Your task to perform on an android device: turn on notifications settings in the gmail app Image 0: 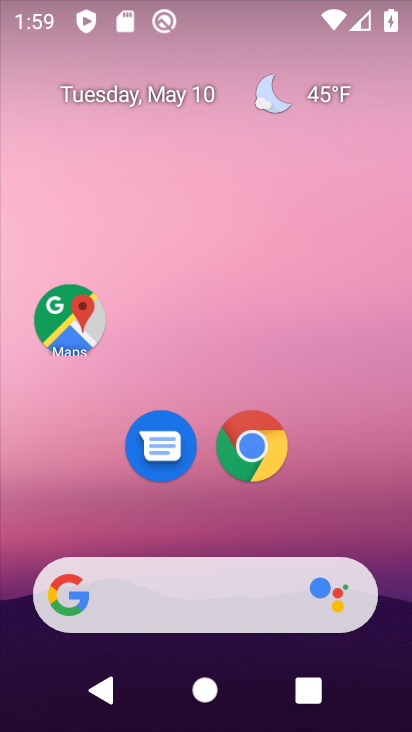
Step 0: drag from (220, 533) to (184, 113)
Your task to perform on an android device: turn on notifications settings in the gmail app Image 1: 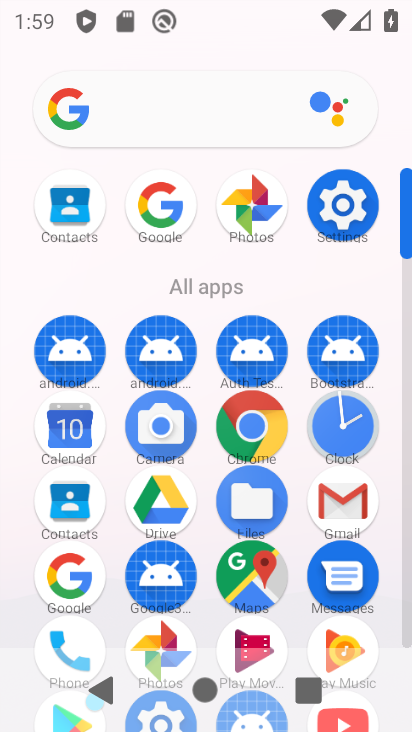
Step 1: click (347, 502)
Your task to perform on an android device: turn on notifications settings in the gmail app Image 2: 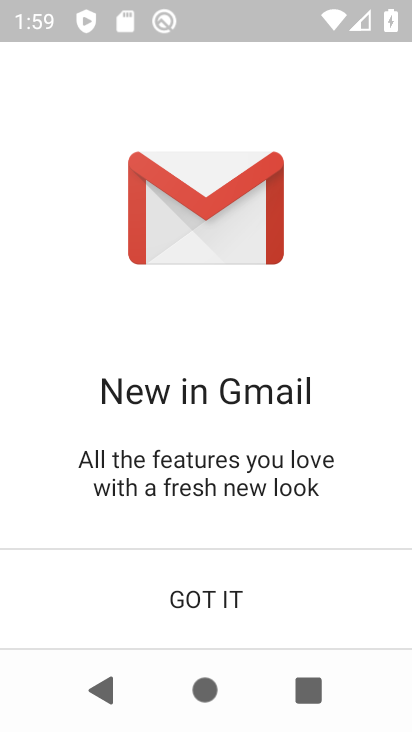
Step 2: click (208, 600)
Your task to perform on an android device: turn on notifications settings in the gmail app Image 3: 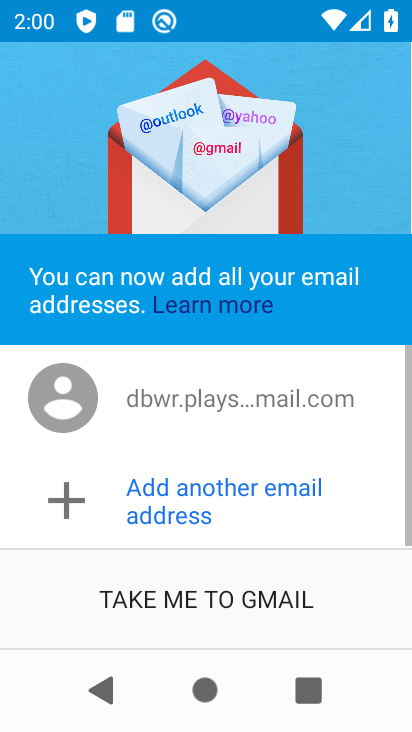
Step 3: click (213, 592)
Your task to perform on an android device: turn on notifications settings in the gmail app Image 4: 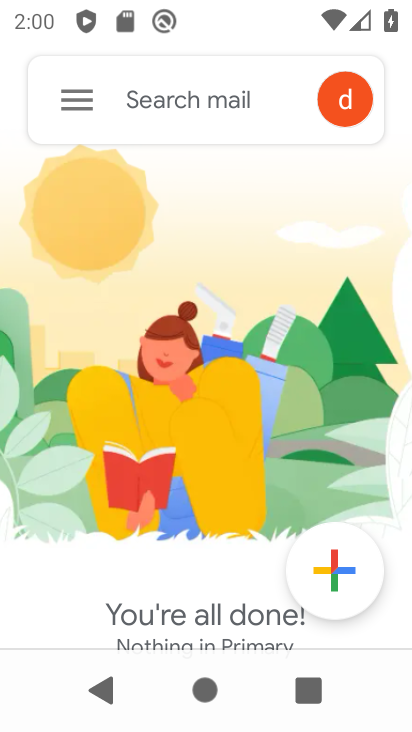
Step 4: click (74, 100)
Your task to perform on an android device: turn on notifications settings in the gmail app Image 5: 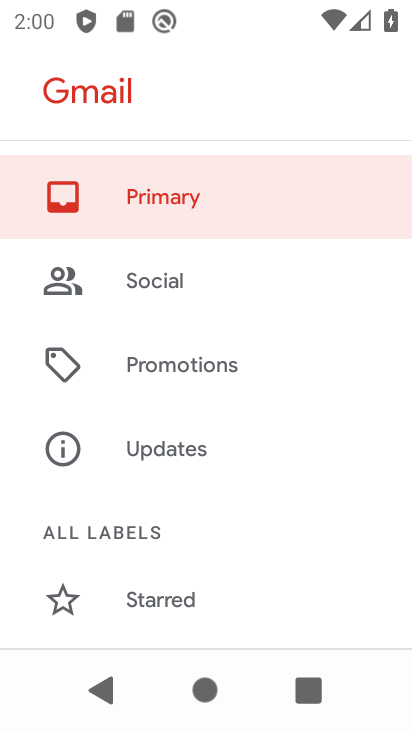
Step 5: drag from (218, 568) to (239, 1)
Your task to perform on an android device: turn on notifications settings in the gmail app Image 6: 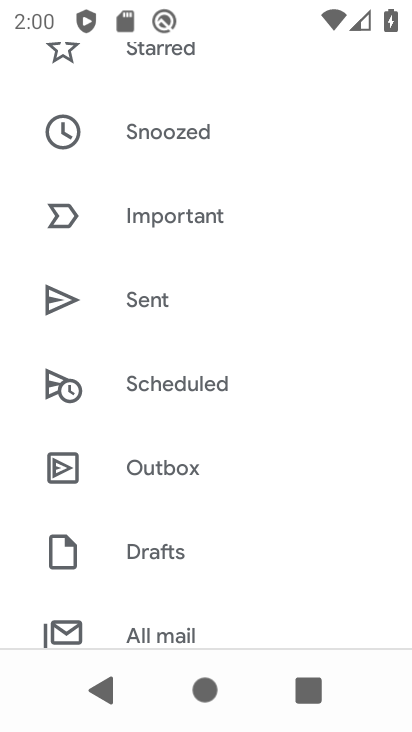
Step 6: drag from (185, 585) to (158, 72)
Your task to perform on an android device: turn on notifications settings in the gmail app Image 7: 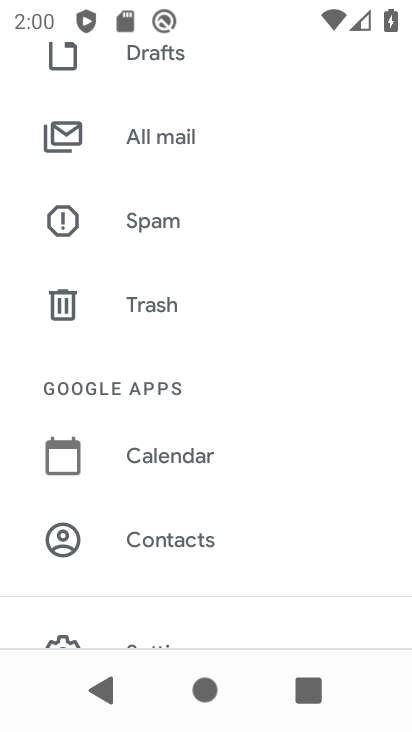
Step 7: drag from (158, 545) to (171, 150)
Your task to perform on an android device: turn on notifications settings in the gmail app Image 8: 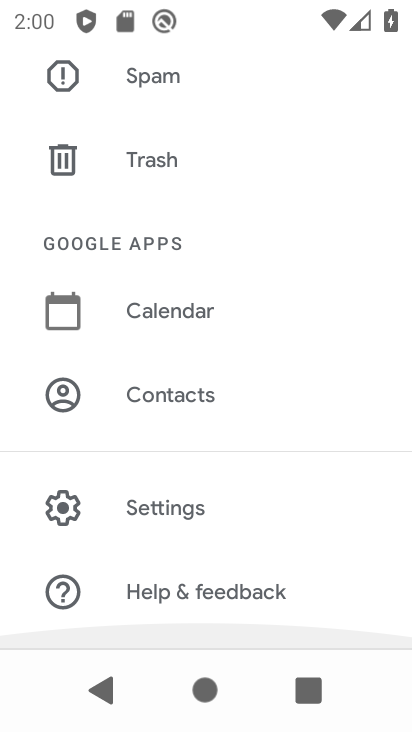
Step 8: click (120, 514)
Your task to perform on an android device: turn on notifications settings in the gmail app Image 9: 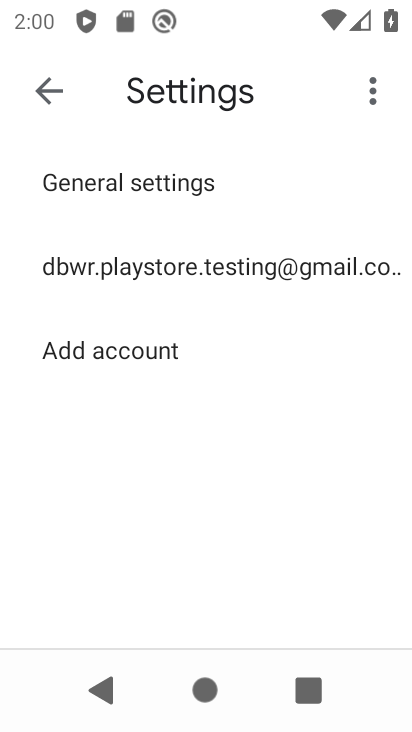
Step 9: click (137, 274)
Your task to perform on an android device: turn on notifications settings in the gmail app Image 10: 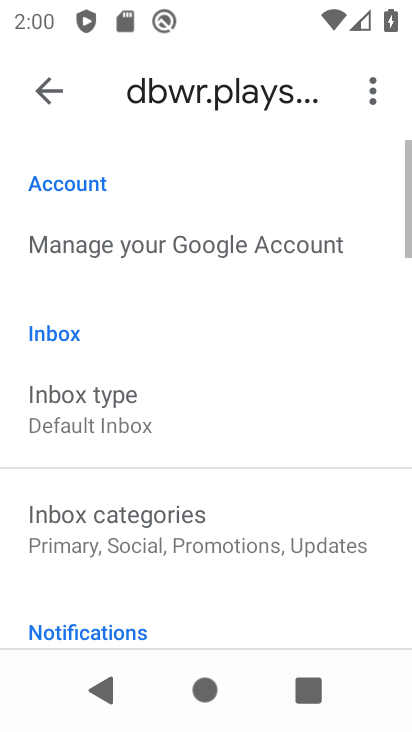
Step 10: drag from (182, 577) to (206, 264)
Your task to perform on an android device: turn on notifications settings in the gmail app Image 11: 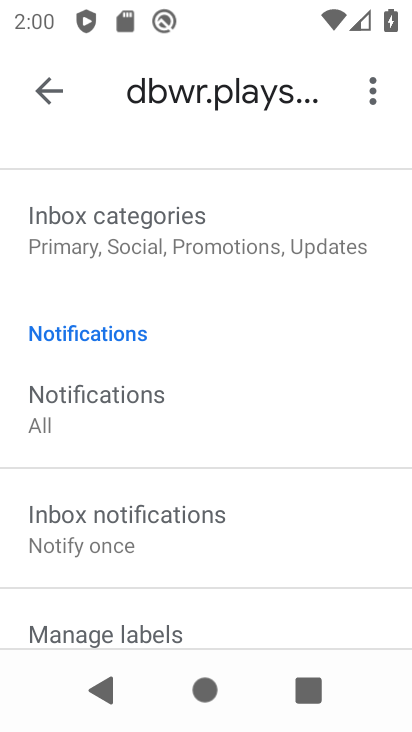
Step 11: click (123, 410)
Your task to perform on an android device: turn on notifications settings in the gmail app Image 12: 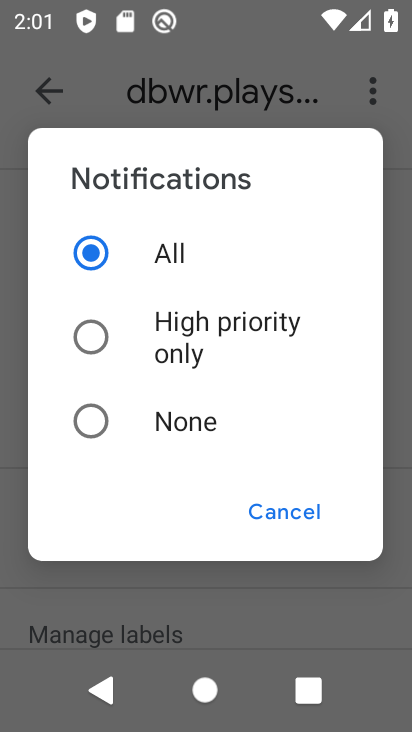
Step 12: task complete